Your task to perform on an android device: star an email in the gmail app Image 0: 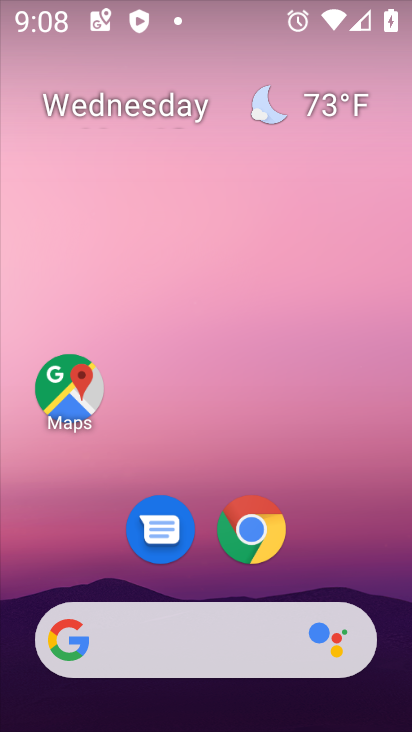
Step 0: drag from (368, 551) to (359, 225)
Your task to perform on an android device: star an email in the gmail app Image 1: 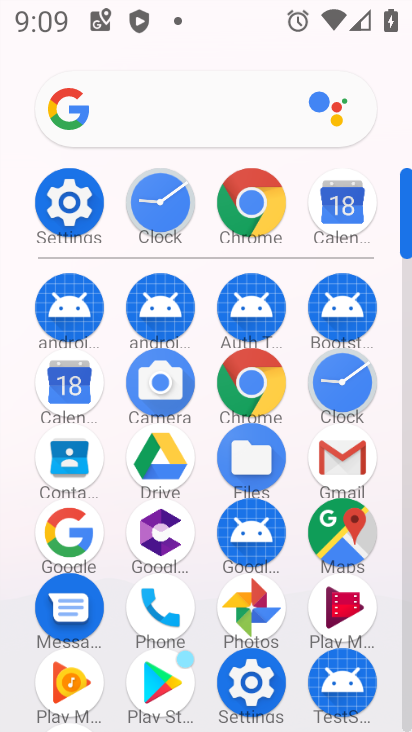
Step 1: click (341, 443)
Your task to perform on an android device: star an email in the gmail app Image 2: 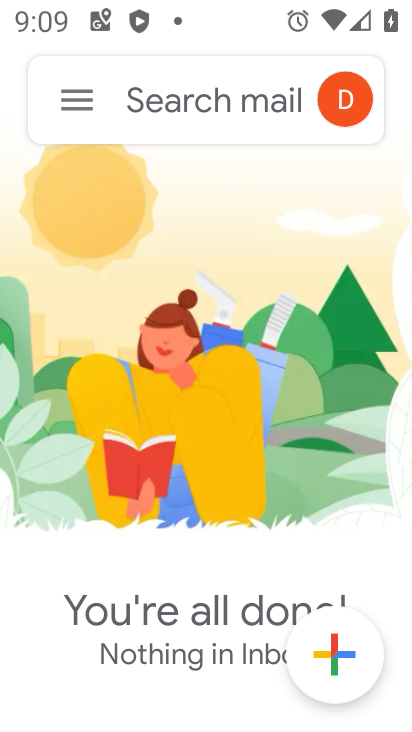
Step 2: click (80, 104)
Your task to perform on an android device: star an email in the gmail app Image 3: 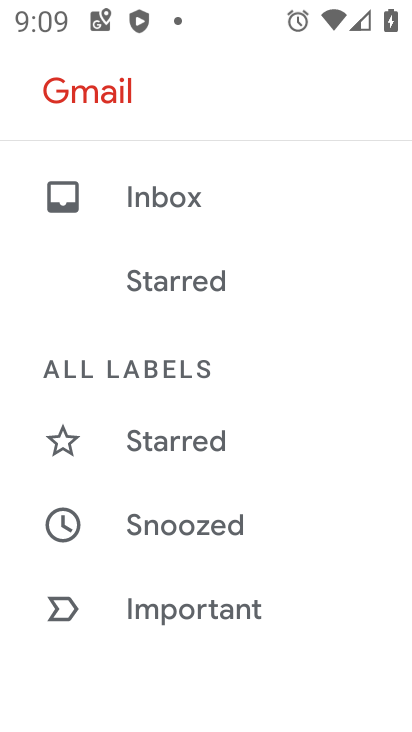
Step 3: drag from (350, 497) to (357, 384)
Your task to perform on an android device: star an email in the gmail app Image 4: 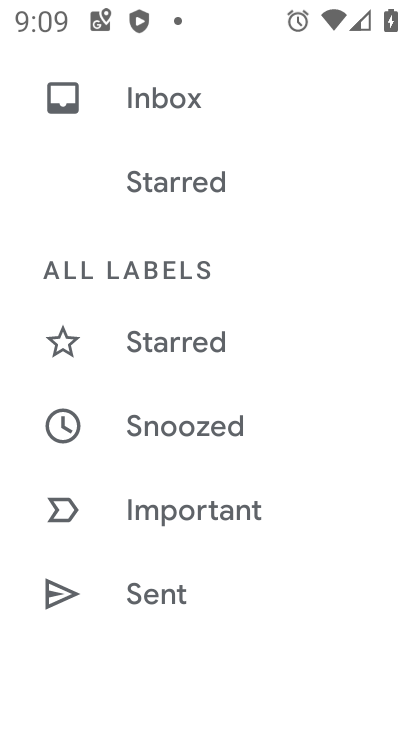
Step 4: drag from (358, 591) to (354, 426)
Your task to perform on an android device: star an email in the gmail app Image 5: 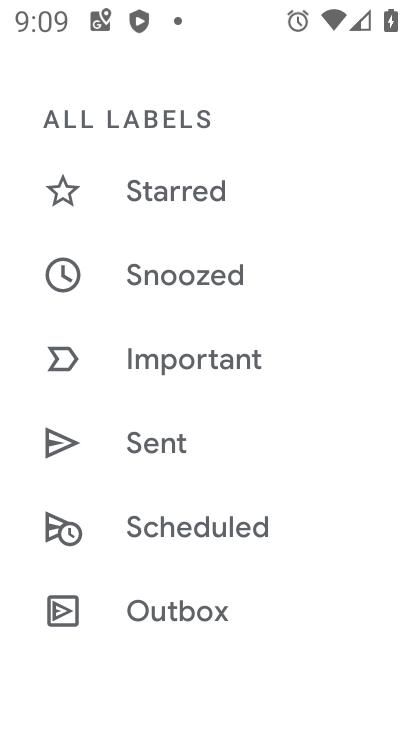
Step 5: drag from (336, 598) to (336, 419)
Your task to perform on an android device: star an email in the gmail app Image 6: 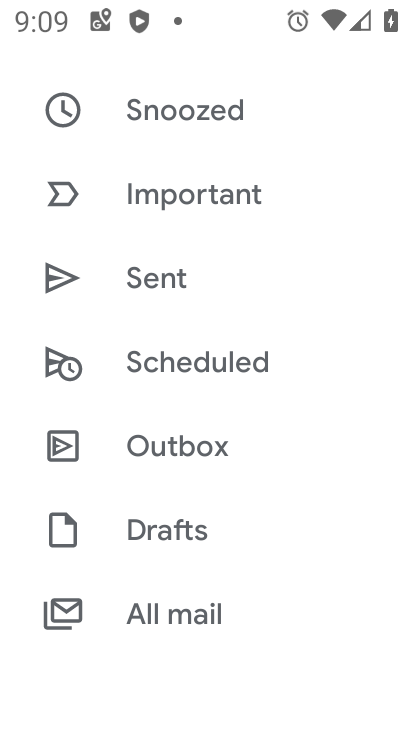
Step 6: drag from (337, 282) to (335, 514)
Your task to perform on an android device: star an email in the gmail app Image 7: 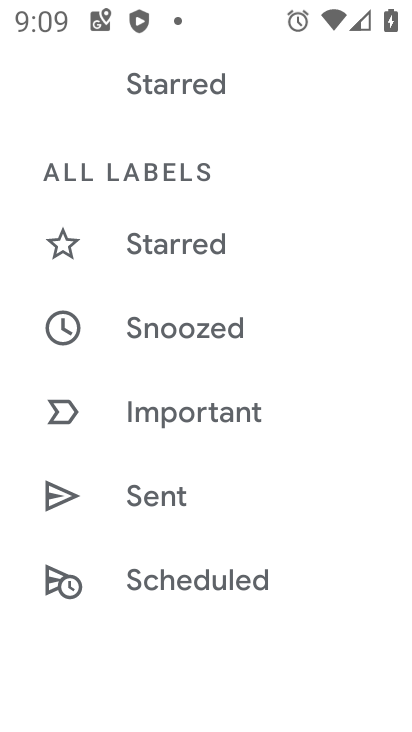
Step 7: drag from (338, 262) to (338, 463)
Your task to perform on an android device: star an email in the gmail app Image 8: 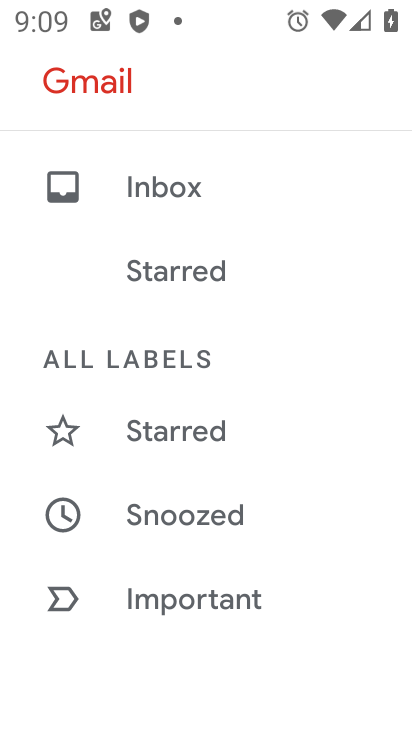
Step 8: drag from (311, 245) to (312, 450)
Your task to perform on an android device: star an email in the gmail app Image 9: 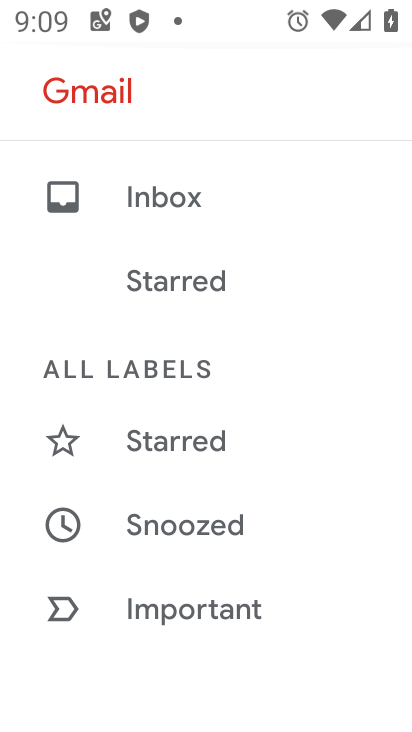
Step 9: click (192, 195)
Your task to perform on an android device: star an email in the gmail app Image 10: 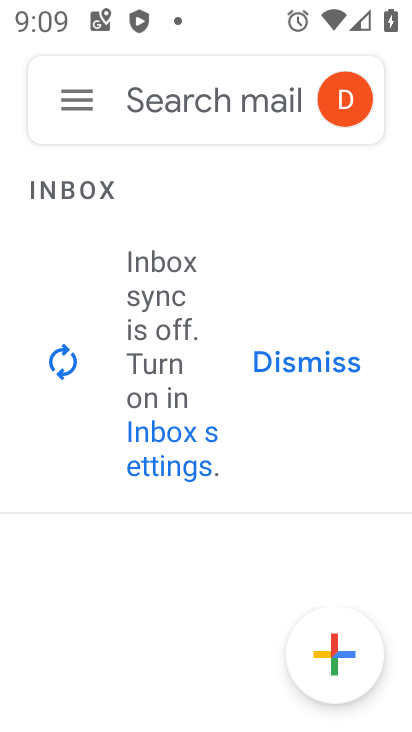
Step 10: task complete